Your task to perform on an android device: toggle sleep mode Image 0: 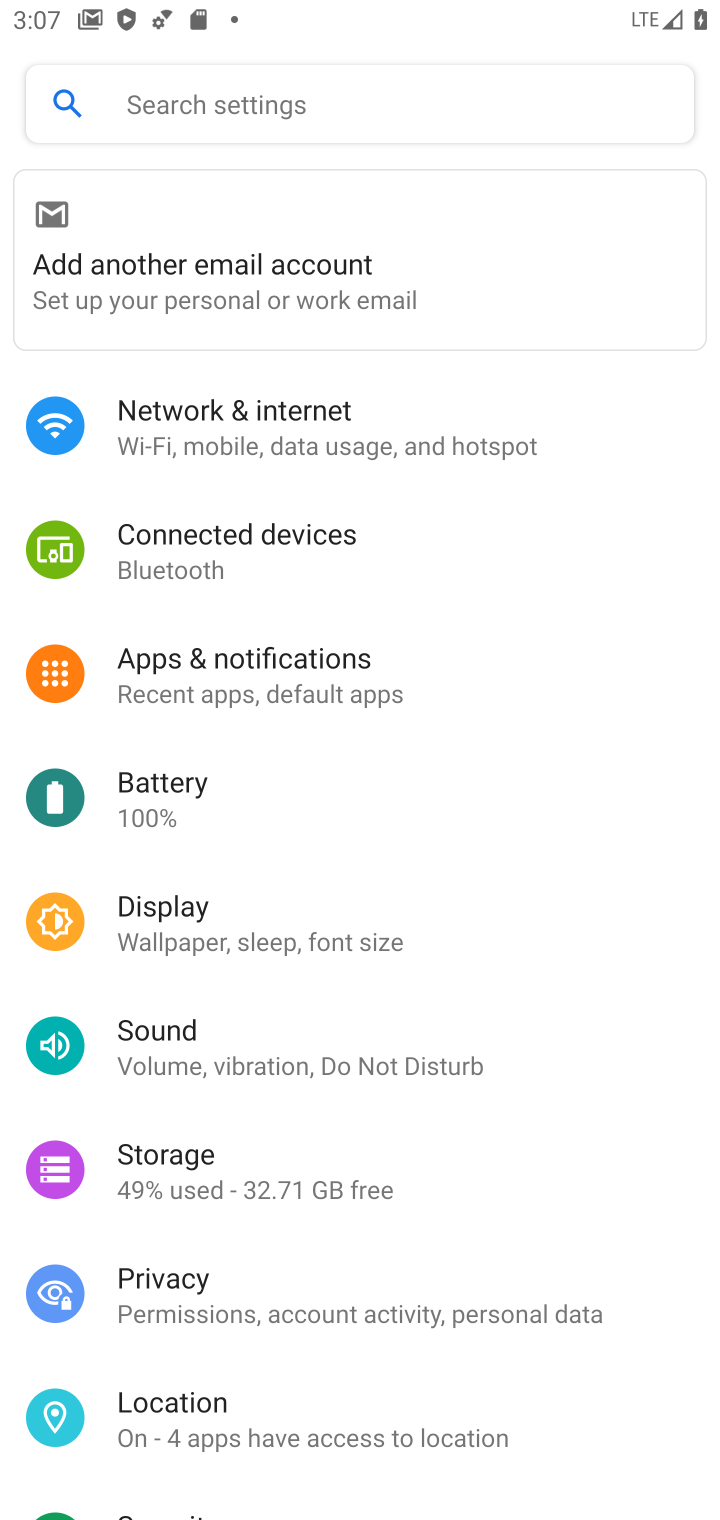
Step 0: click (181, 934)
Your task to perform on an android device: toggle sleep mode Image 1: 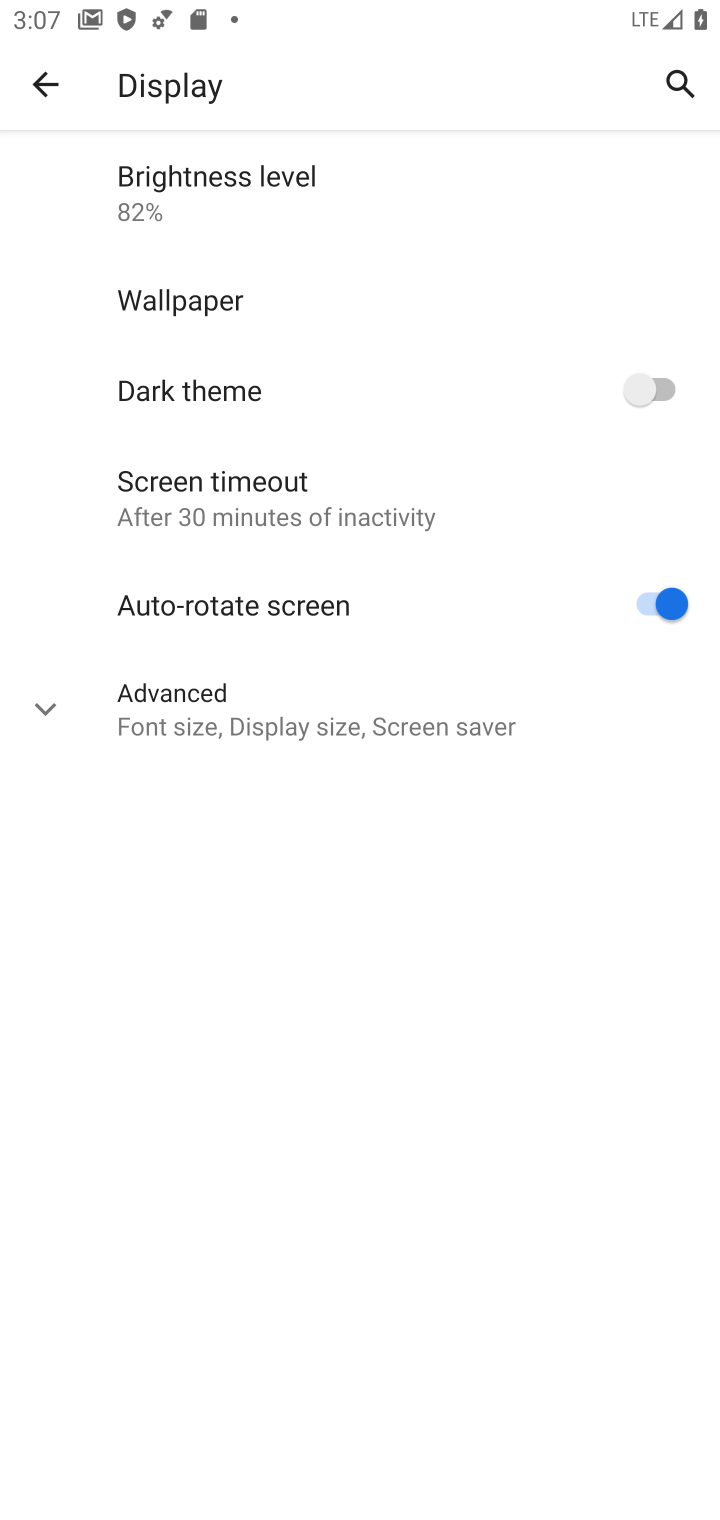
Step 1: click (223, 499)
Your task to perform on an android device: toggle sleep mode Image 2: 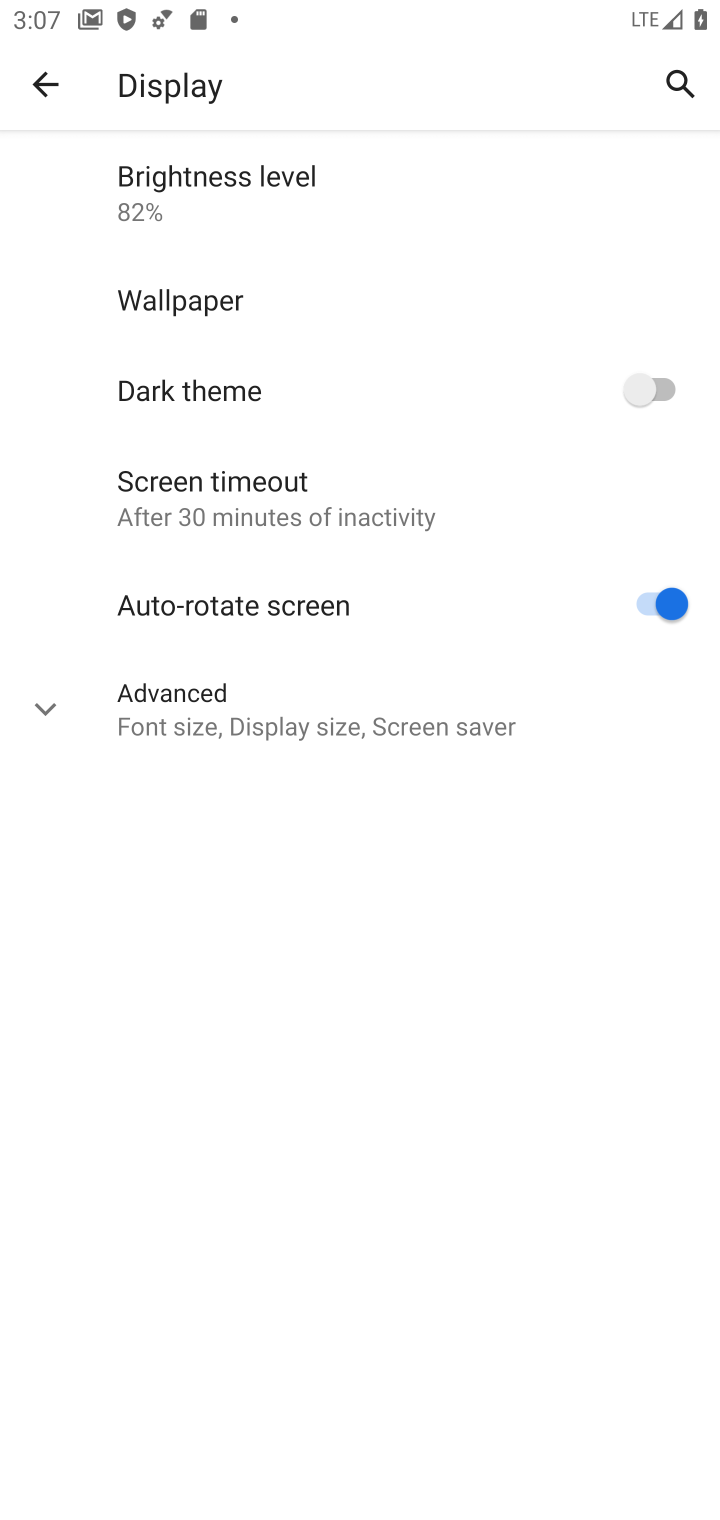
Step 2: click (223, 498)
Your task to perform on an android device: toggle sleep mode Image 3: 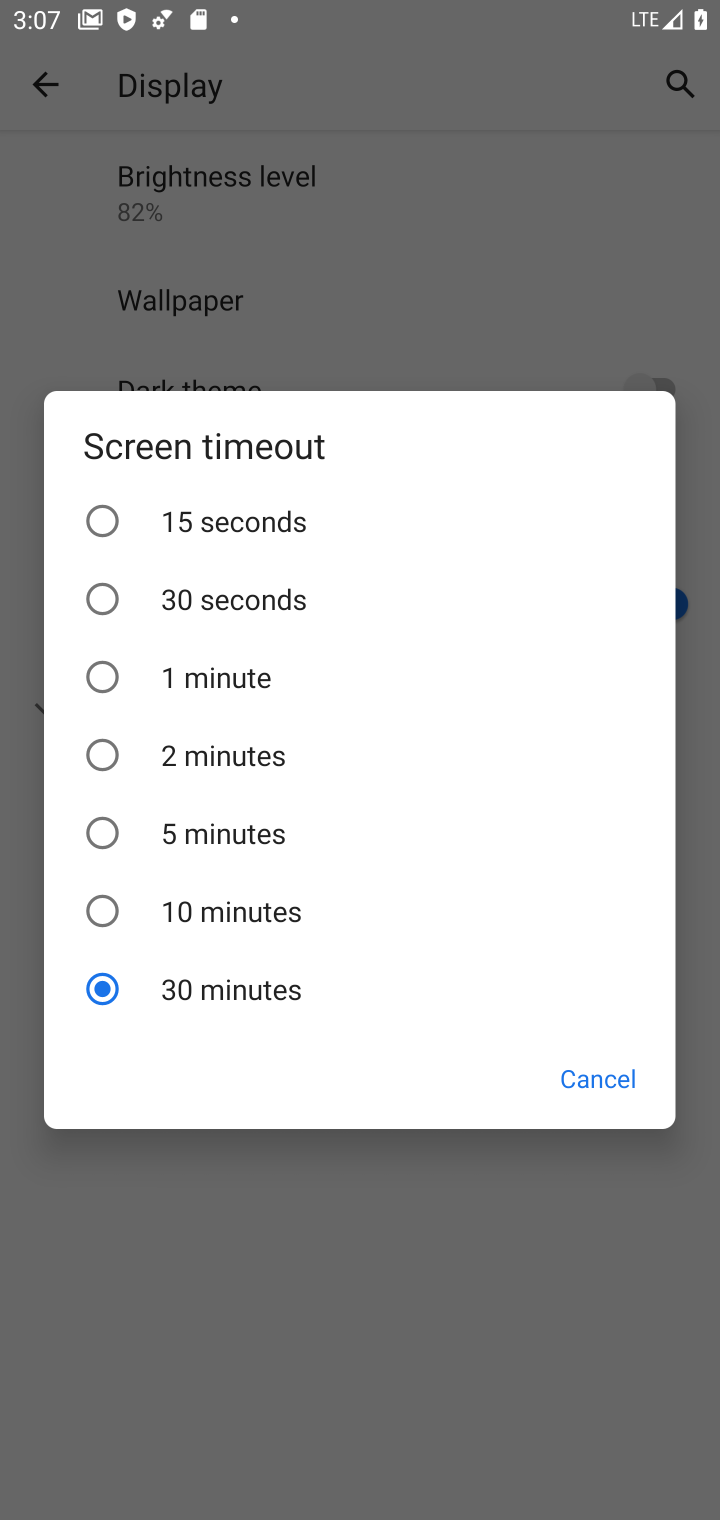
Step 3: click (101, 754)
Your task to perform on an android device: toggle sleep mode Image 4: 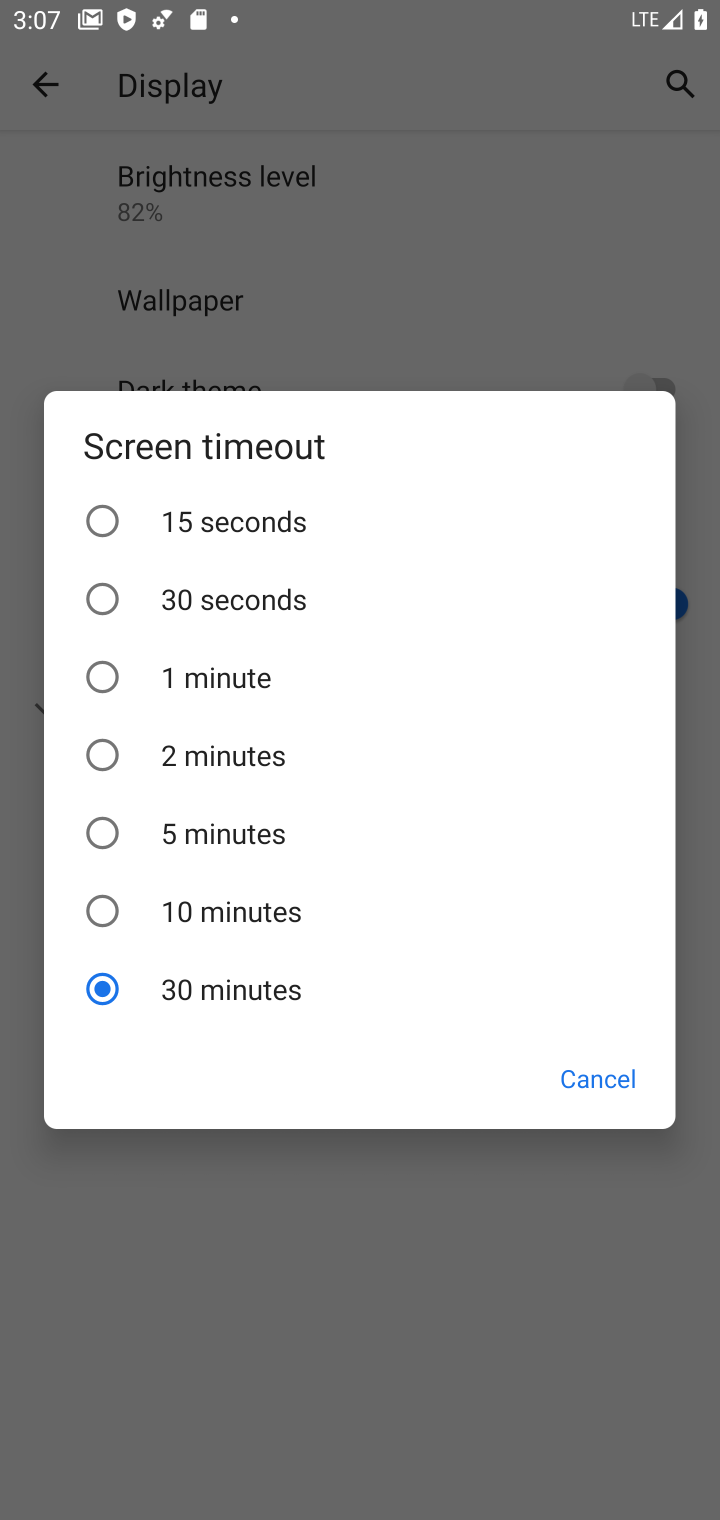
Step 4: click (101, 754)
Your task to perform on an android device: toggle sleep mode Image 5: 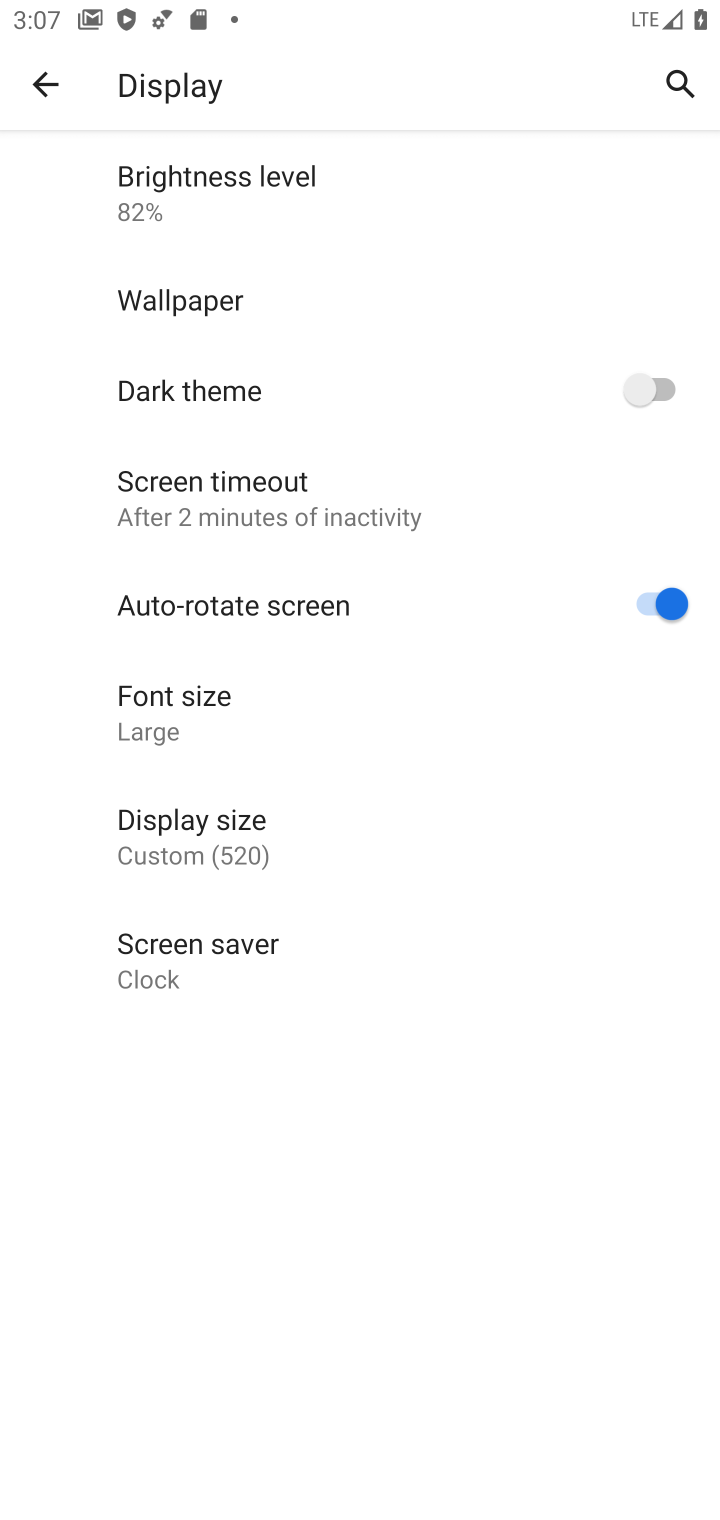
Step 5: task complete